Your task to perform on an android device: Open Chrome and go to the settings page Image 0: 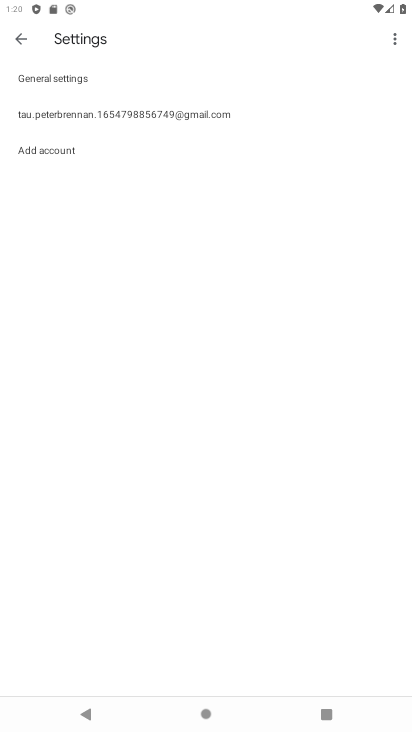
Step 0: press home button
Your task to perform on an android device: Open Chrome and go to the settings page Image 1: 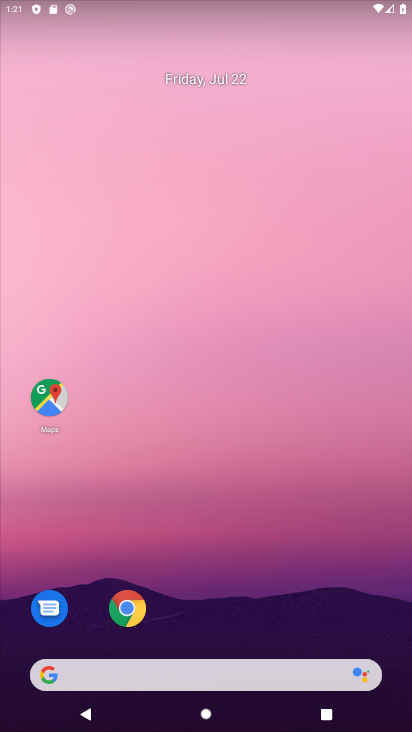
Step 1: drag from (403, 719) to (302, 169)
Your task to perform on an android device: Open Chrome and go to the settings page Image 2: 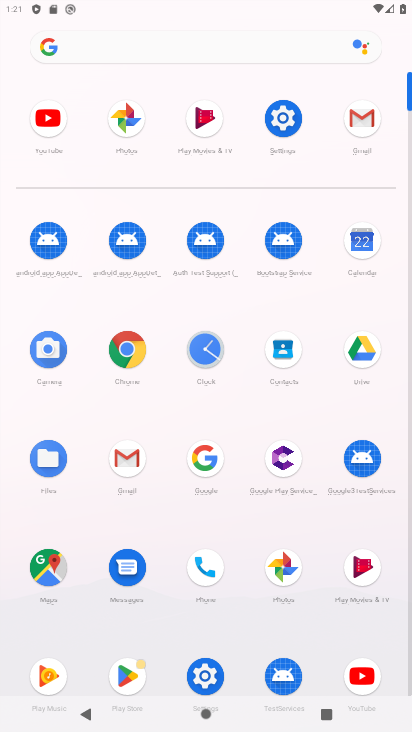
Step 2: click (130, 350)
Your task to perform on an android device: Open Chrome and go to the settings page Image 3: 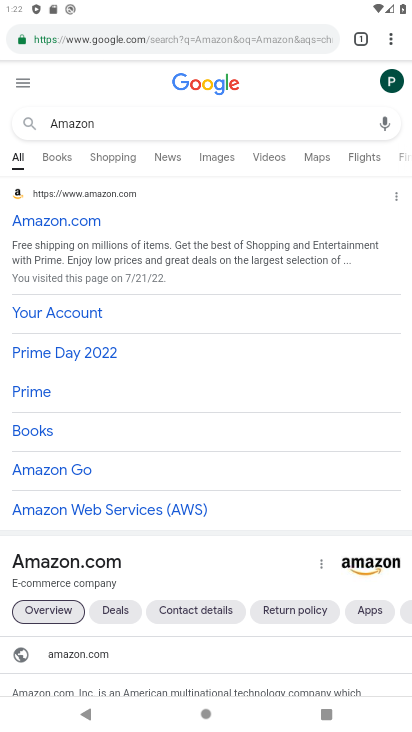
Step 3: click (390, 35)
Your task to perform on an android device: Open Chrome and go to the settings page Image 4: 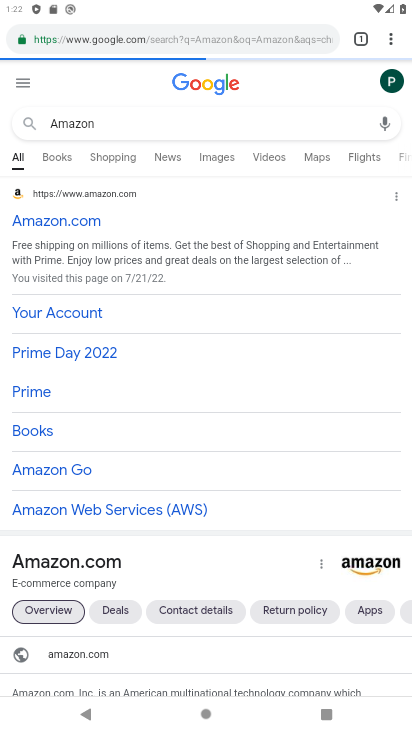
Step 4: click (390, 35)
Your task to perform on an android device: Open Chrome and go to the settings page Image 5: 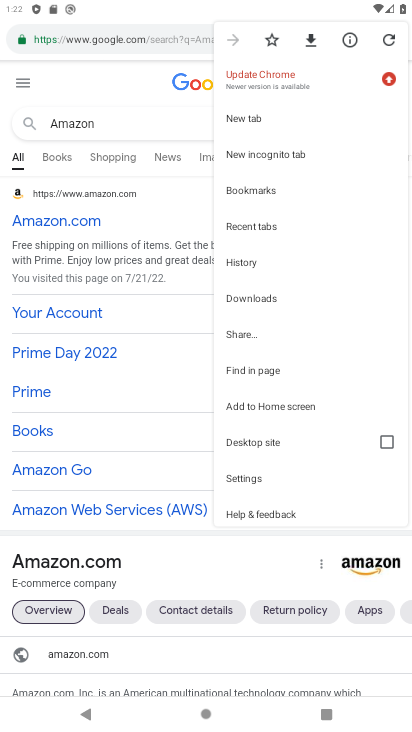
Step 5: click (246, 480)
Your task to perform on an android device: Open Chrome and go to the settings page Image 6: 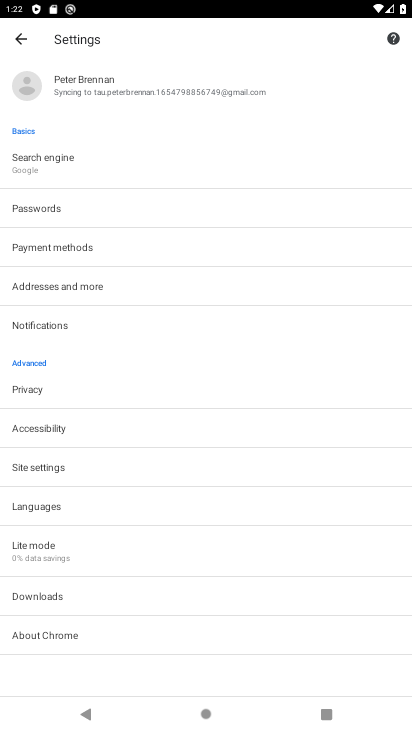
Step 6: task complete